Your task to perform on an android device: Add panasonic triple a to the cart on newegg.com, then select checkout. Image 0: 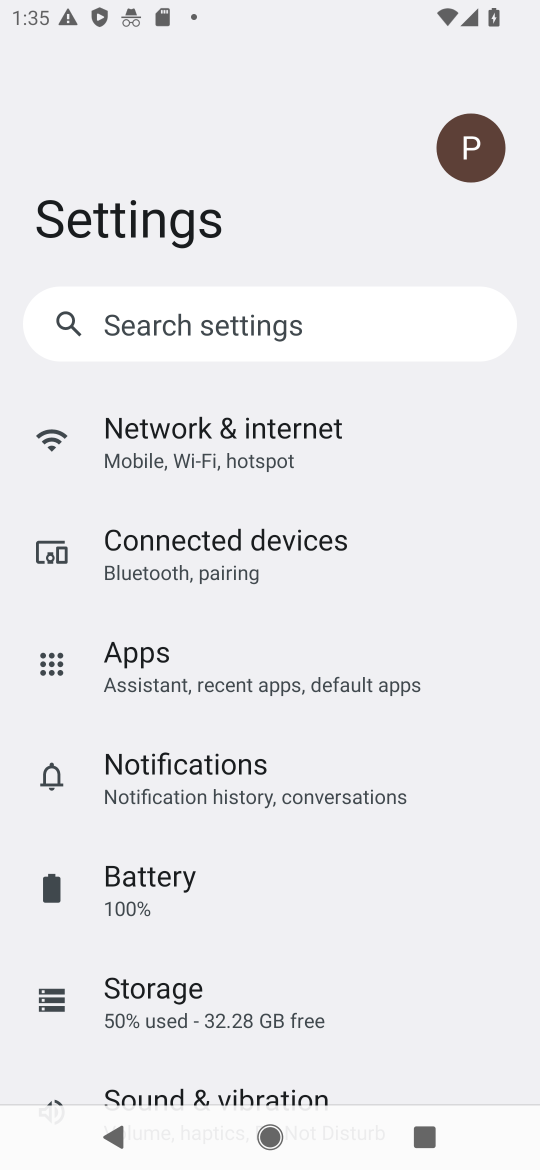
Step 0: task complete